Your task to perform on an android device: Is it going to rain today? Image 0: 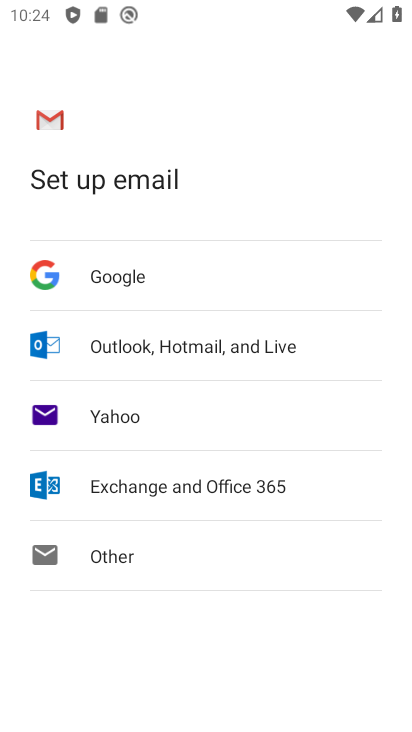
Step 0: press back button
Your task to perform on an android device: Is it going to rain today? Image 1: 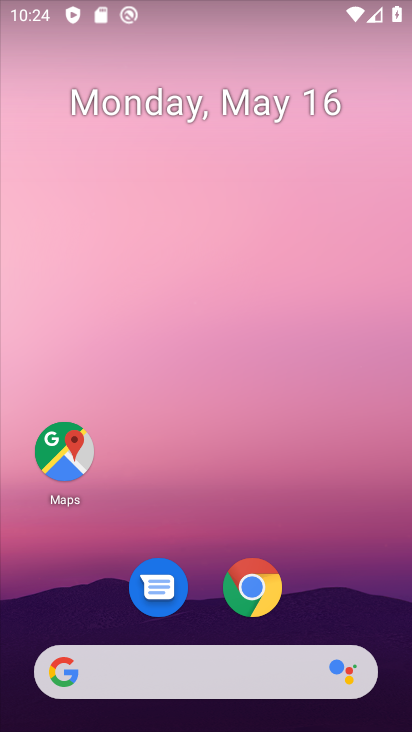
Step 1: drag from (331, 582) to (241, 0)
Your task to perform on an android device: Is it going to rain today? Image 2: 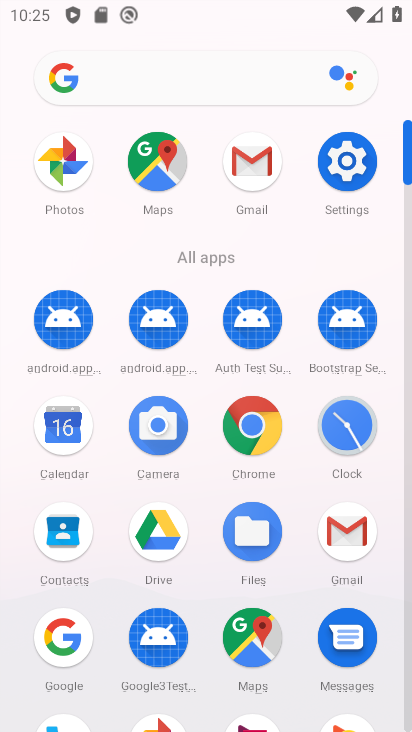
Step 2: drag from (7, 552) to (20, 242)
Your task to perform on an android device: Is it going to rain today? Image 3: 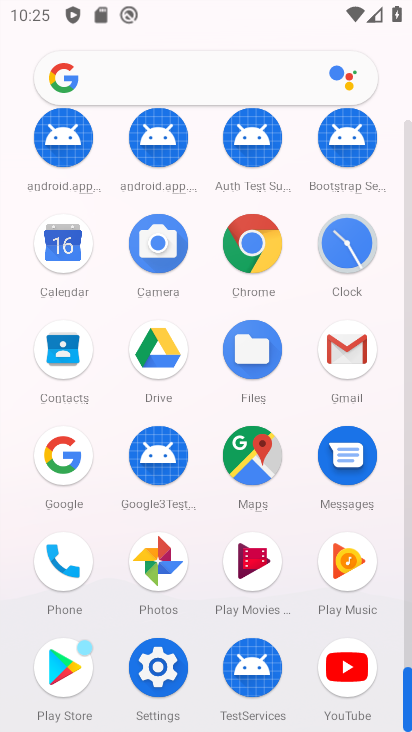
Step 3: click (250, 421)
Your task to perform on an android device: Is it going to rain today? Image 4: 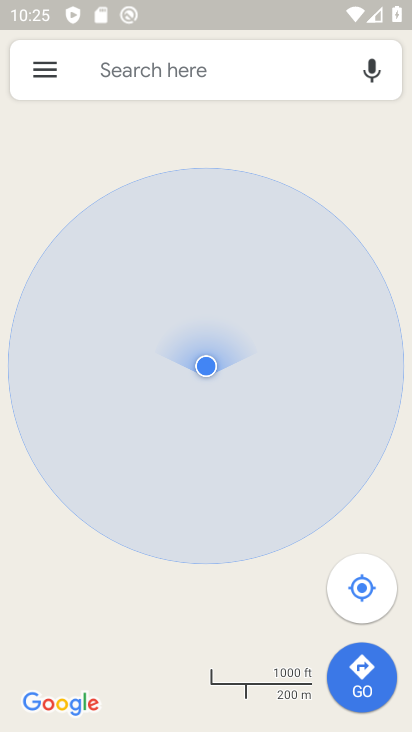
Step 4: press back button
Your task to perform on an android device: Is it going to rain today? Image 5: 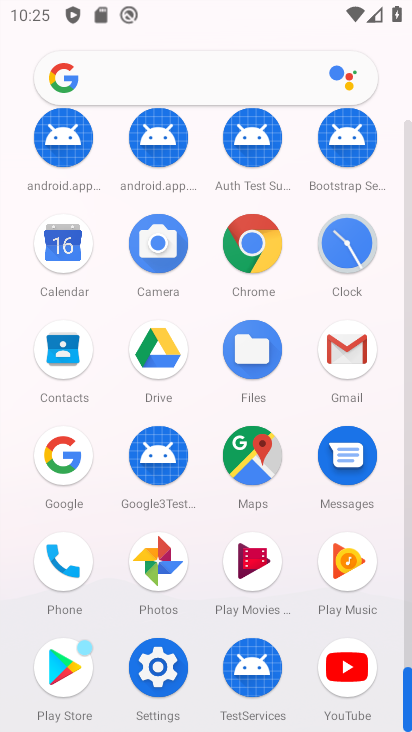
Step 5: press back button
Your task to perform on an android device: Is it going to rain today? Image 6: 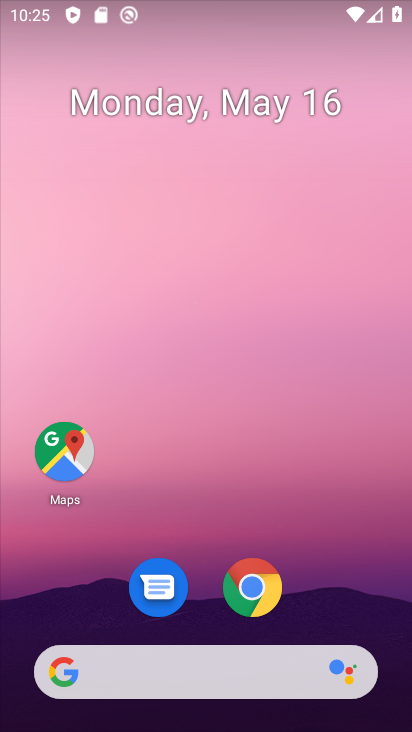
Step 6: drag from (340, 587) to (257, 25)
Your task to perform on an android device: Is it going to rain today? Image 7: 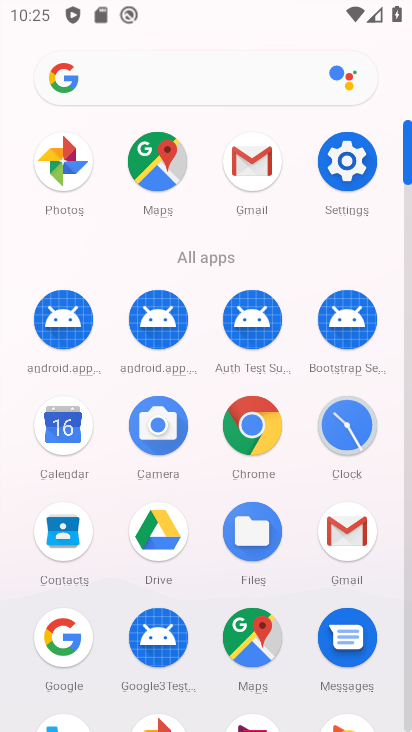
Step 7: click (248, 424)
Your task to perform on an android device: Is it going to rain today? Image 8: 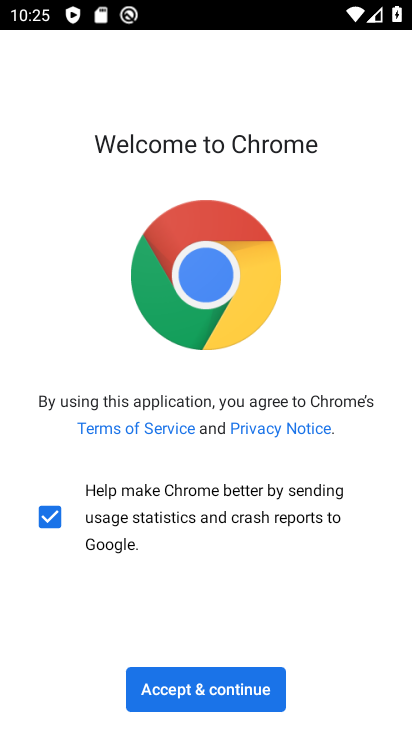
Step 8: click (202, 671)
Your task to perform on an android device: Is it going to rain today? Image 9: 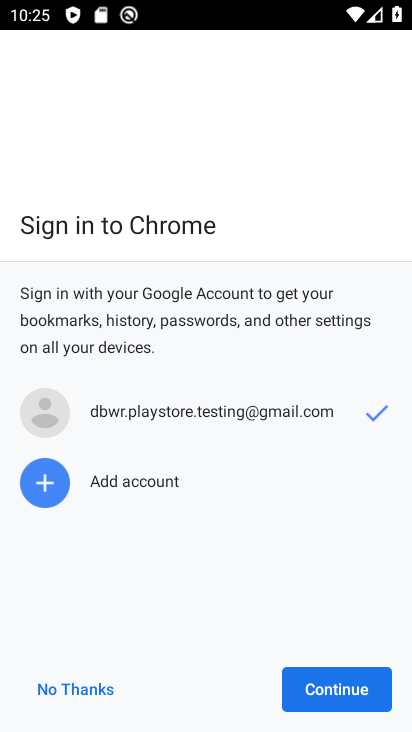
Step 9: click (320, 681)
Your task to perform on an android device: Is it going to rain today? Image 10: 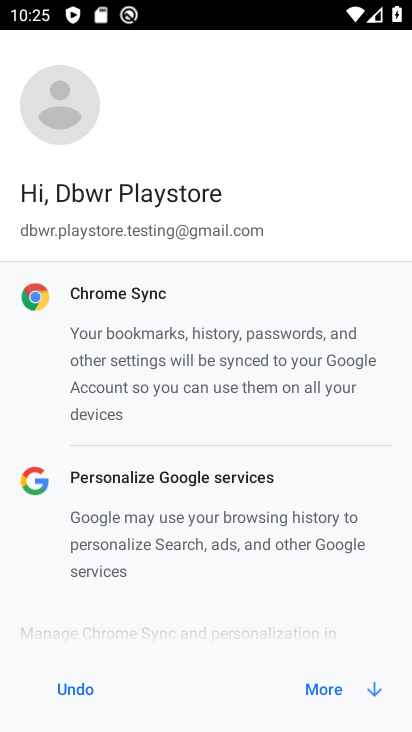
Step 10: click (321, 693)
Your task to perform on an android device: Is it going to rain today? Image 11: 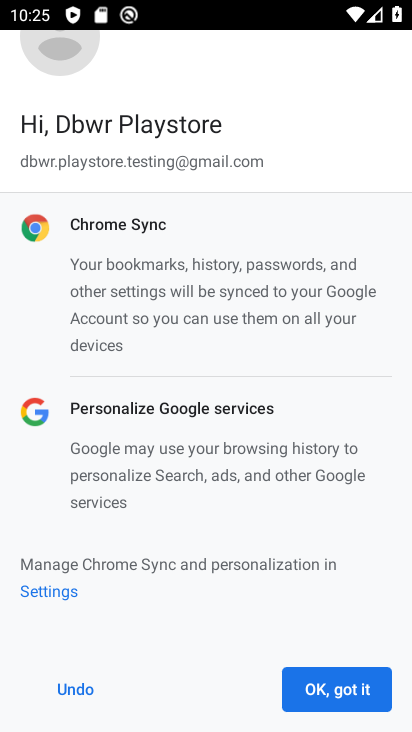
Step 11: click (323, 688)
Your task to perform on an android device: Is it going to rain today? Image 12: 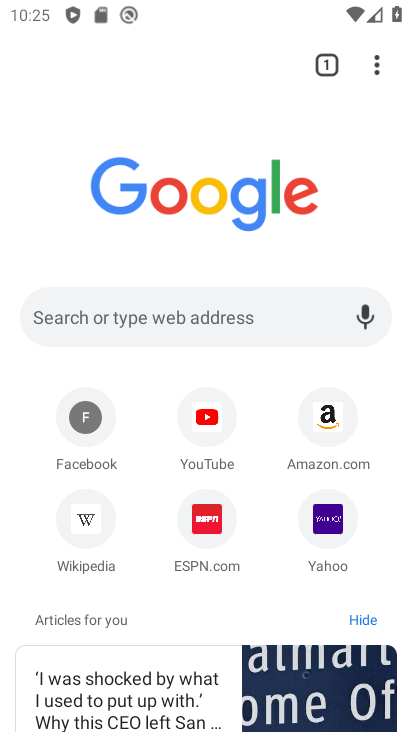
Step 12: click (160, 312)
Your task to perform on an android device: Is it going to rain today? Image 13: 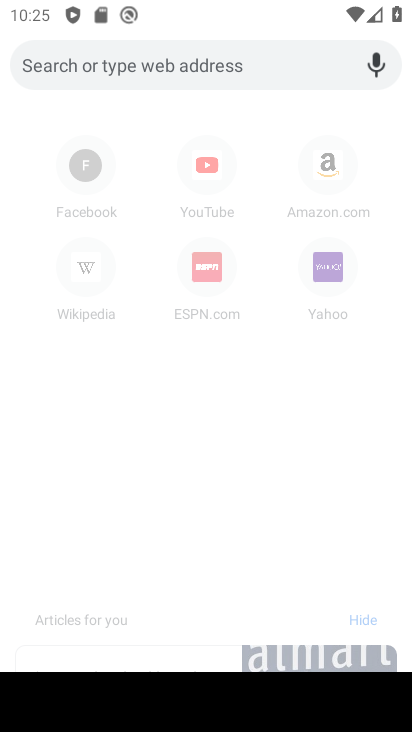
Step 13: click (176, 60)
Your task to perform on an android device: Is it going to rain today? Image 14: 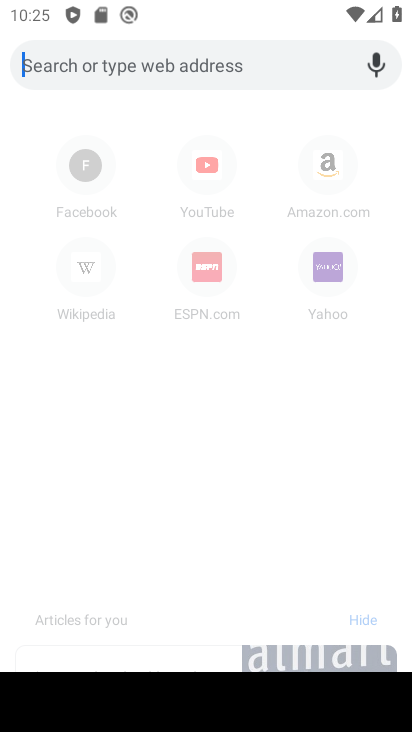
Step 14: type "Is it going to rain today?"
Your task to perform on an android device: Is it going to rain today? Image 15: 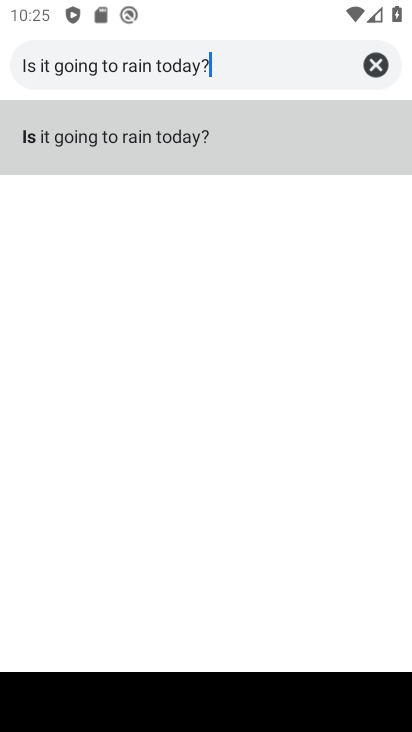
Step 15: type ""
Your task to perform on an android device: Is it going to rain today? Image 16: 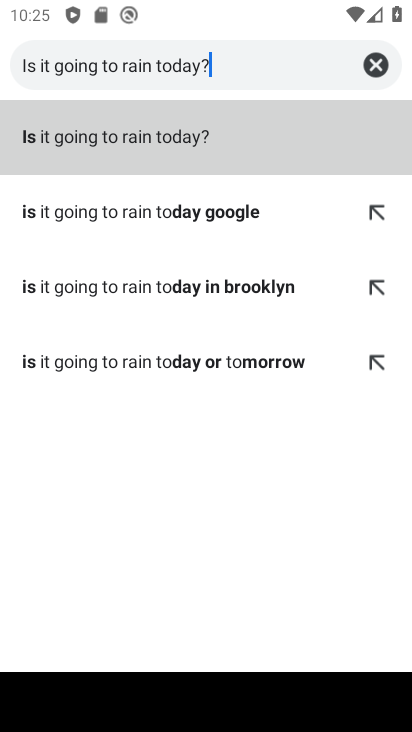
Step 16: click (190, 137)
Your task to perform on an android device: Is it going to rain today? Image 17: 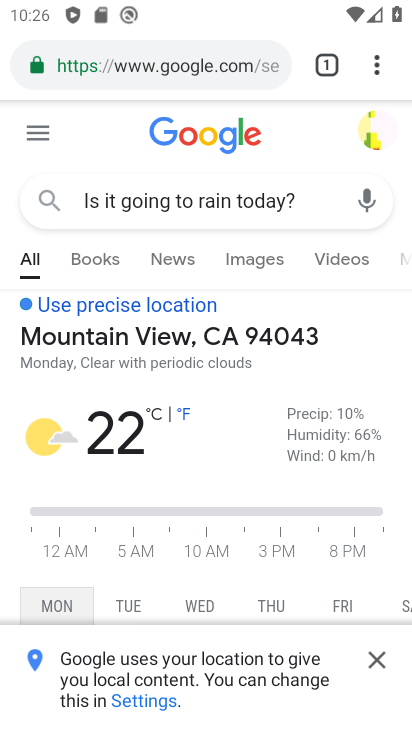
Step 17: task complete